Your task to perform on an android device: Go to display settings Image 0: 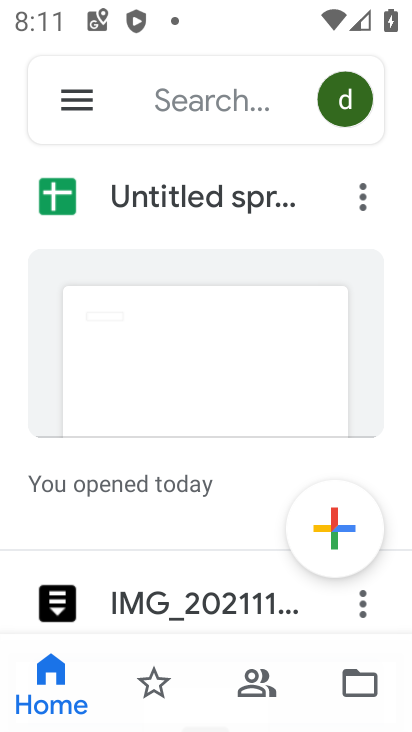
Step 0: press home button
Your task to perform on an android device: Go to display settings Image 1: 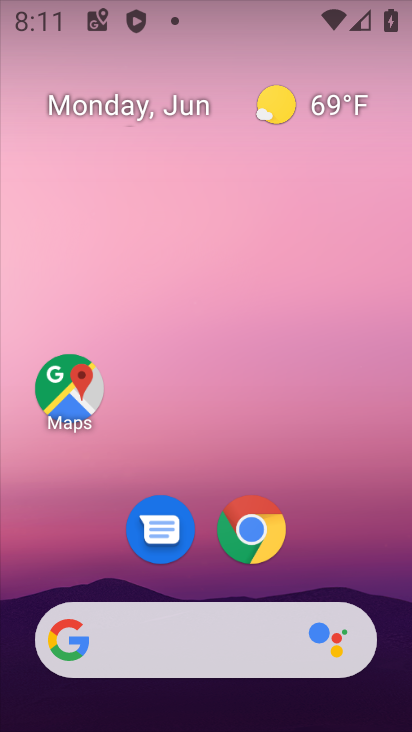
Step 1: drag from (376, 530) to (411, 249)
Your task to perform on an android device: Go to display settings Image 2: 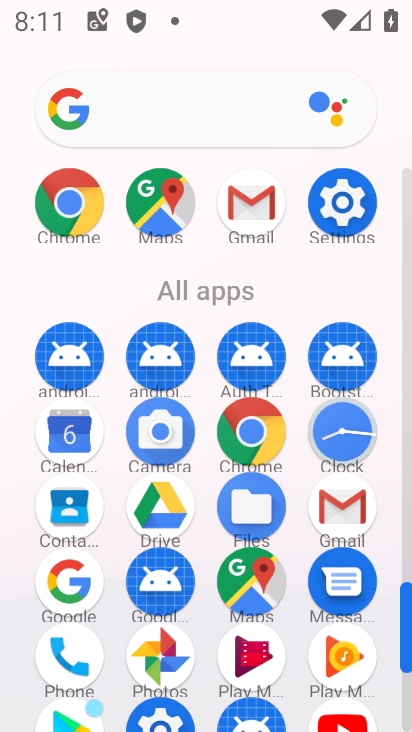
Step 2: click (338, 216)
Your task to perform on an android device: Go to display settings Image 3: 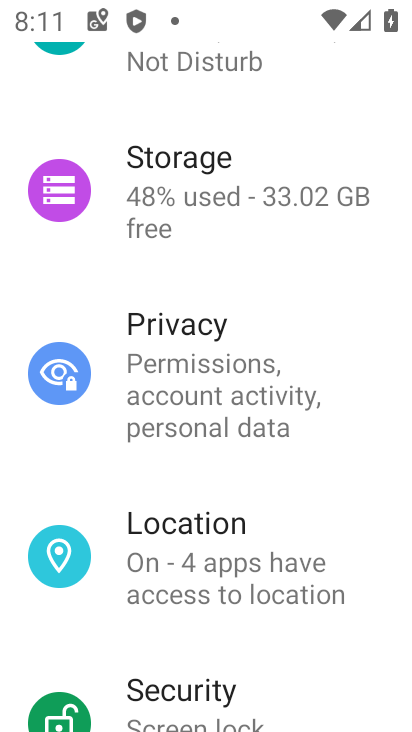
Step 3: drag from (344, 162) to (373, 440)
Your task to perform on an android device: Go to display settings Image 4: 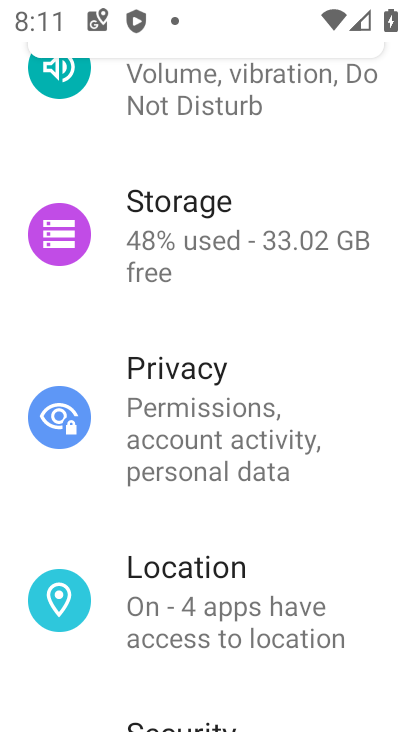
Step 4: drag from (327, 238) to (337, 447)
Your task to perform on an android device: Go to display settings Image 5: 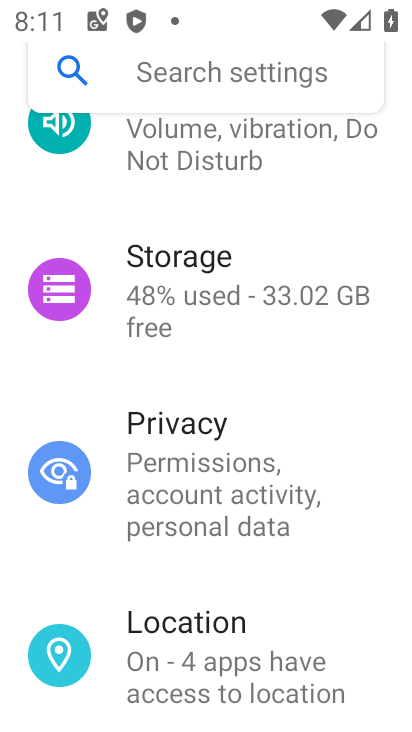
Step 5: drag from (360, 242) to (409, 563)
Your task to perform on an android device: Go to display settings Image 6: 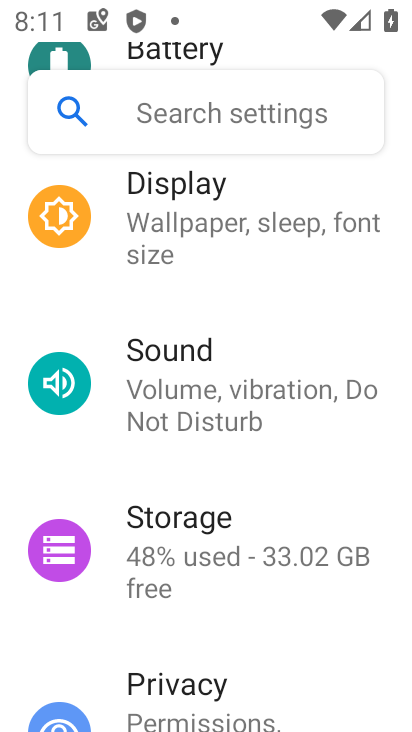
Step 6: click (344, 210)
Your task to perform on an android device: Go to display settings Image 7: 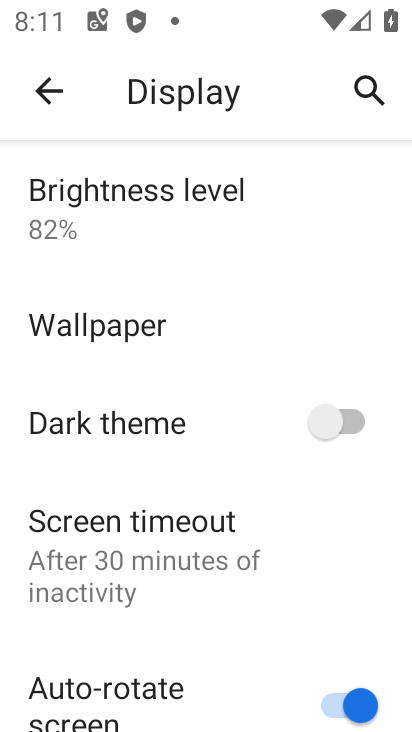
Step 7: task complete